Your task to perform on an android device: turn on notifications settings in the gmail app Image 0: 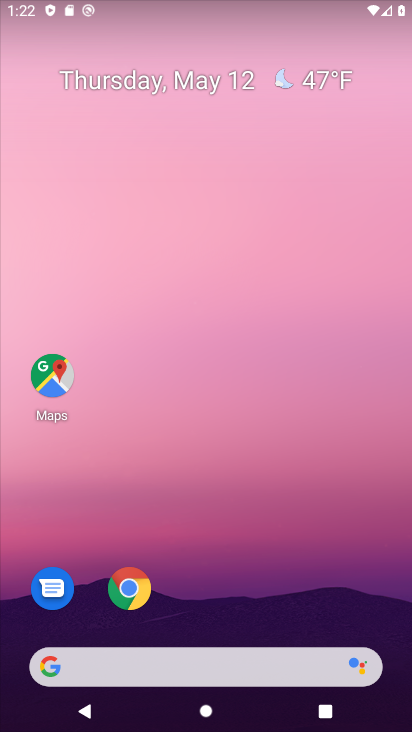
Step 0: drag from (381, 602) to (334, 138)
Your task to perform on an android device: turn on notifications settings in the gmail app Image 1: 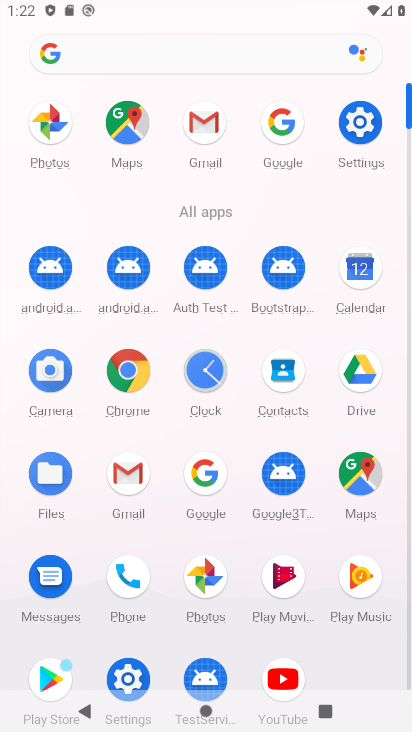
Step 1: click (138, 481)
Your task to perform on an android device: turn on notifications settings in the gmail app Image 2: 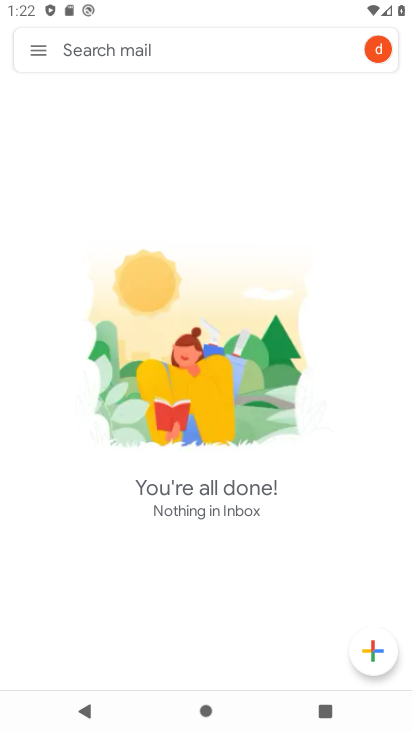
Step 2: click (35, 50)
Your task to perform on an android device: turn on notifications settings in the gmail app Image 3: 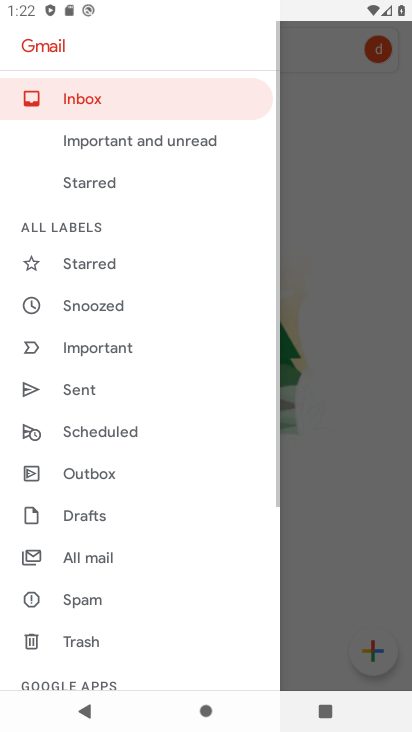
Step 3: drag from (91, 593) to (111, 135)
Your task to perform on an android device: turn on notifications settings in the gmail app Image 4: 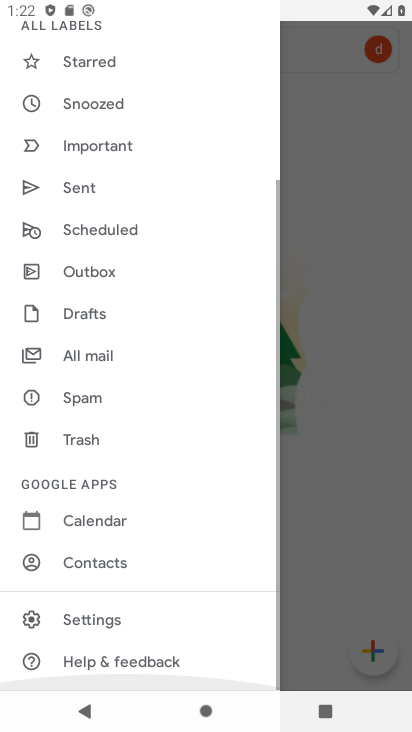
Step 4: click (169, 627)
Your task to perform on an android device: turn on notifications settings in the gmail app Image 5: 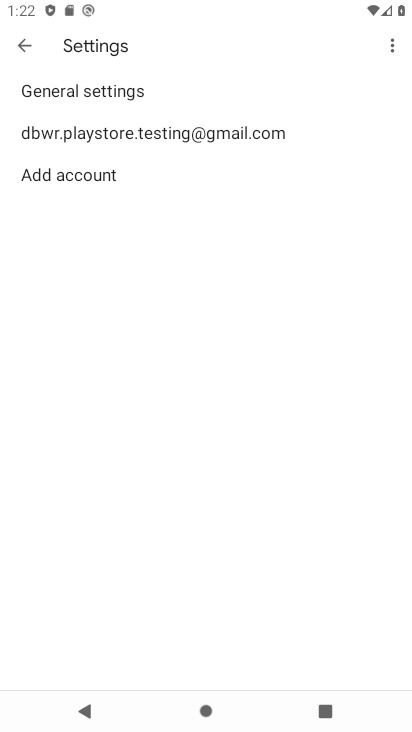
Step 5: click (126, 152)
Your task to perform on an android device: turn on notifications settings in the gmail app Image 6: 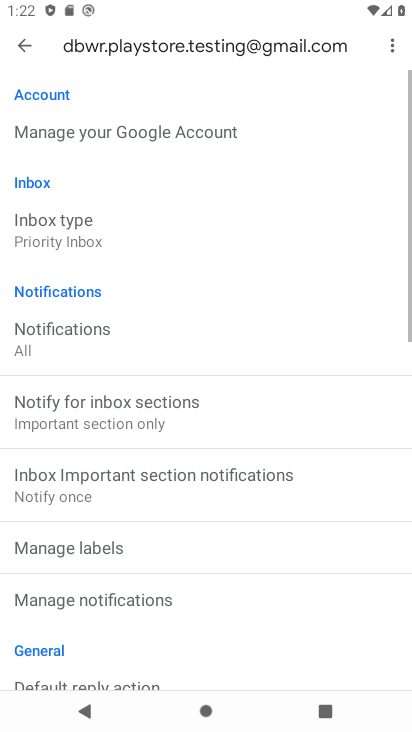
Step 6: click (172, 333)
Your task to perform on an android device: turn on notifications settings in the gmail app Image 7: 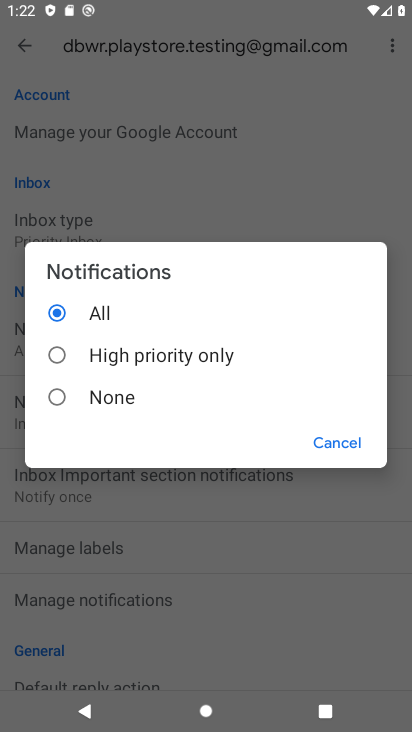
Step 7: task complete